Your task to perform on an android device: Open calendar and show me the first week of next month Image 0: 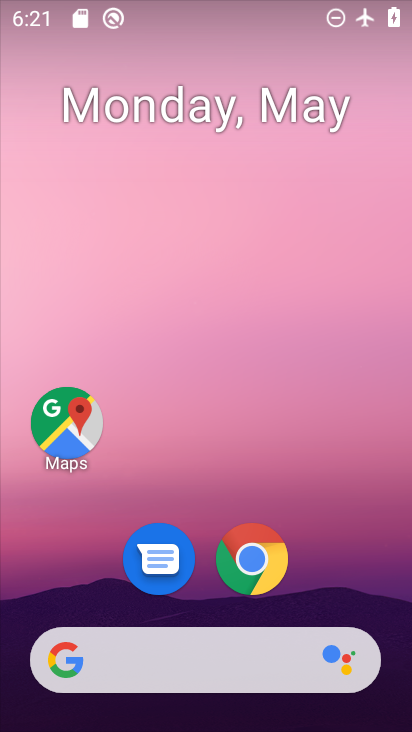
Step 0: drag from (346, 501) to (242, 63)
Your task to perform on an android device: Open calendar and show me the first week of next month Image 1: 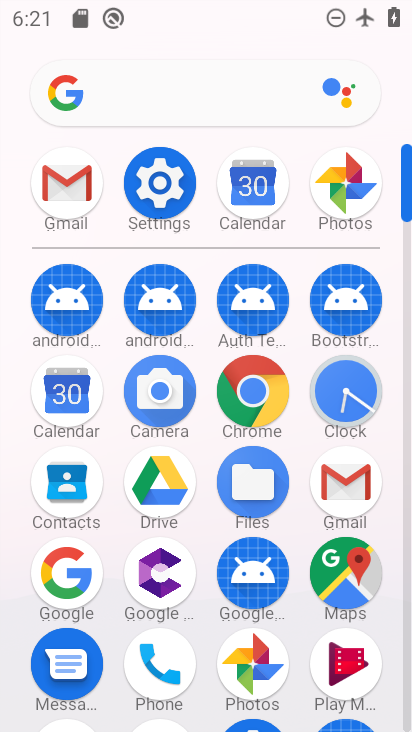
Step 1: click (72, 390)
Your task to perform on an android device: Open calendar and show me the first week of next month Image 2: 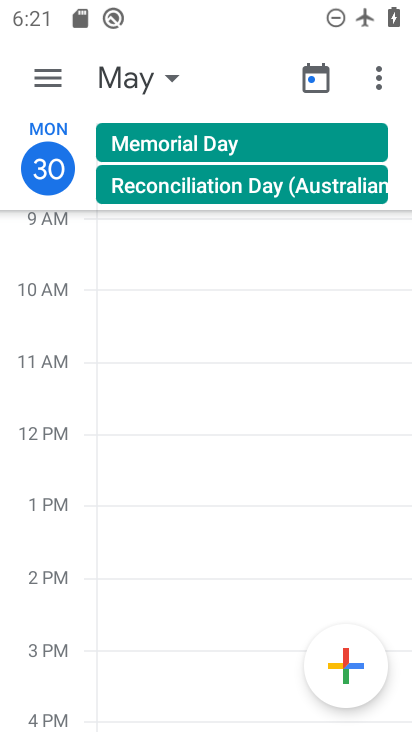
Step 2: click (49, 76)
Your task to perform on an android device: Open calendar and show me the first week of next month Image 3: 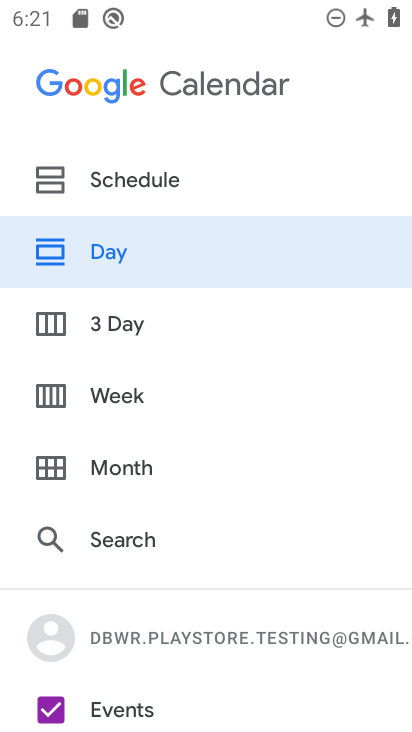
Step 3: click (123, 391)
Your task to perform on an android device: Open calendar and show me the first week of next month Image 4: 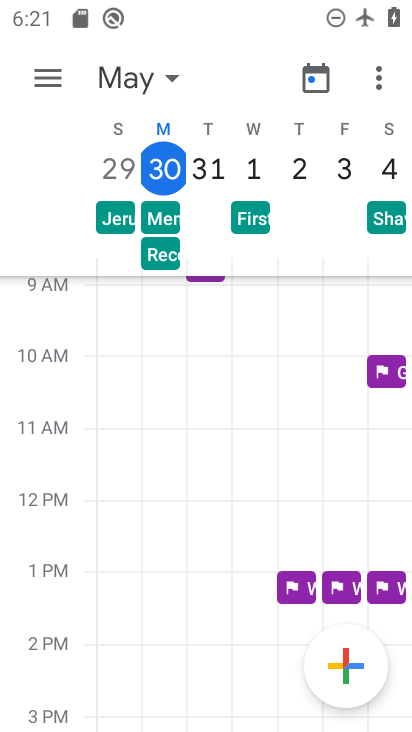
Step 4: click (168, 76)
Your task to perform on an android device: Open calendar and show me the first week of next month Image 5: 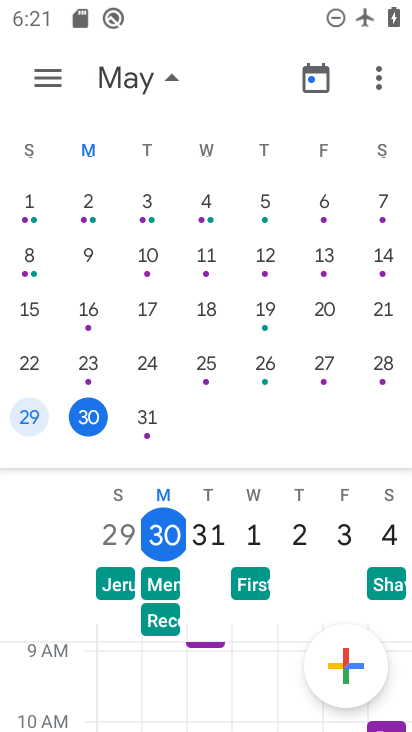
Step 5: drag from (355, 273) to (27, 264)
Your task to perform on an android device: Open calendar and show me the first week of next month Image 6: 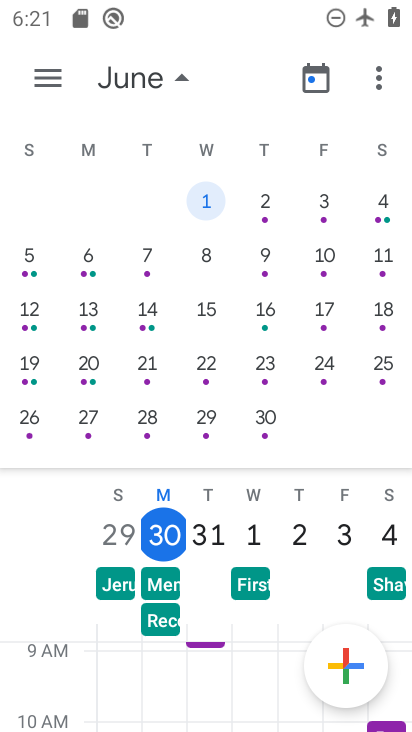
Step 6: click (217, 206)
Your task to perform on an android device: Open calendar and show me the first week of next month Image 7: 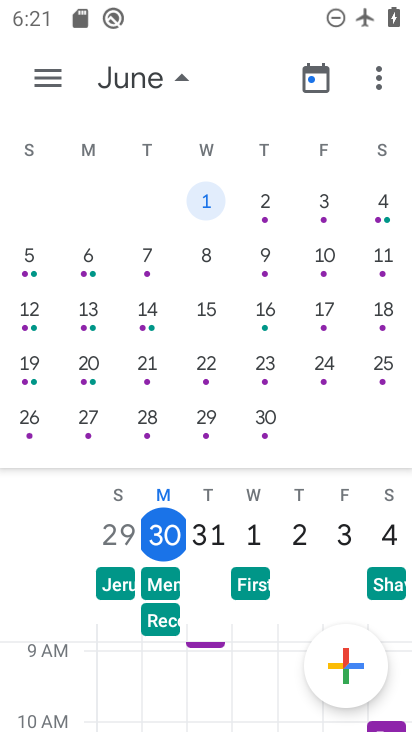
Step 7: task complete